Your task to perform on an android device: turn on airplane mode Image 0: 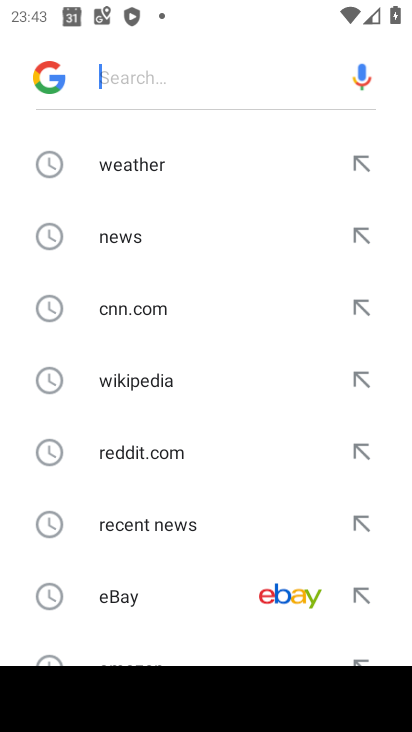
Step 0: press home button
Your task to perform on an android device: turn on airplane mode Image 1: 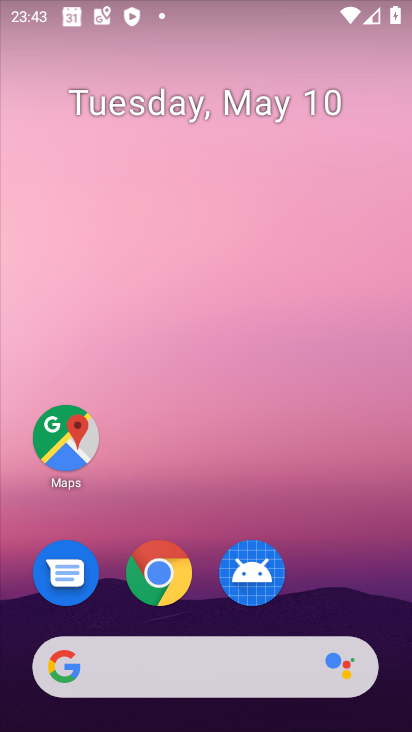
Step 1: drag from (305, 531) to (61, 33)
Your task to perform on an android device: turn on airplane mode Image 2: 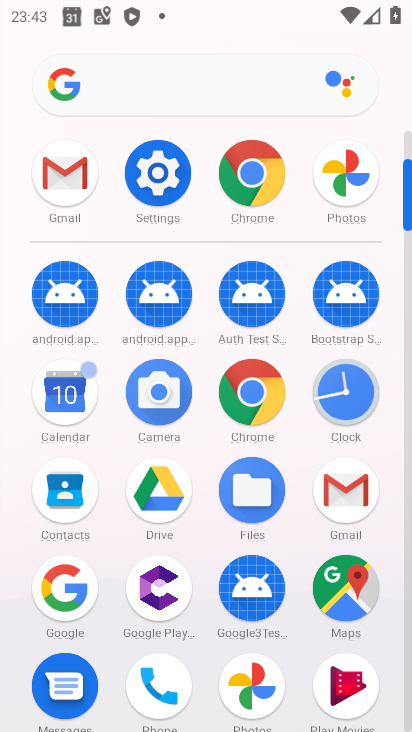
Step 2: click (158, 178)
Your task to perform on an android device: turn on airplane mode Image 3: 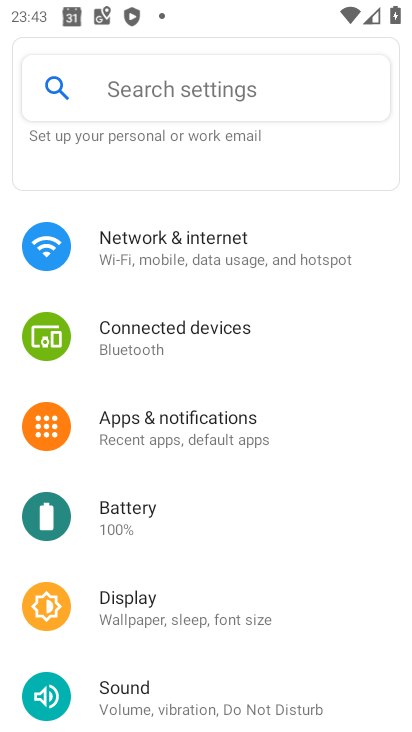
Step 3: click (166, 242)
Your task to perform on an android device: turn on airplane mode Image 4: 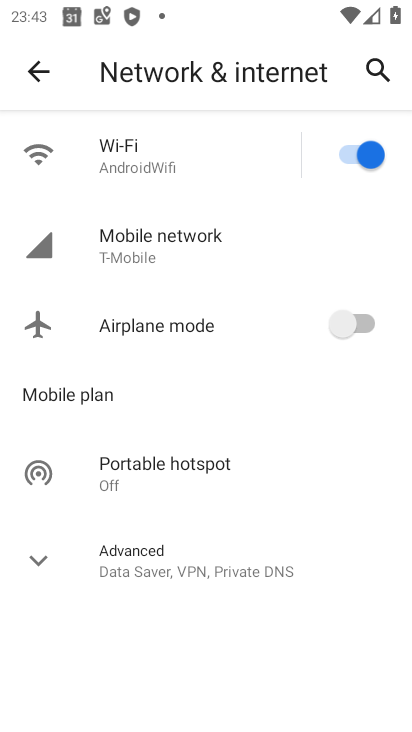
Step 4: click (338, 323)
Your task to perform on an android device: turn on airplane mode Image 5: 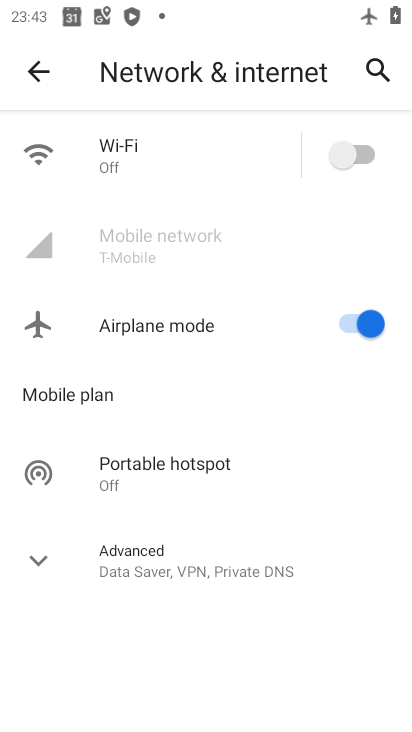
Step 5: task complete